Your task to perform on an android device: Show me popular games on the Play Store Image 0: 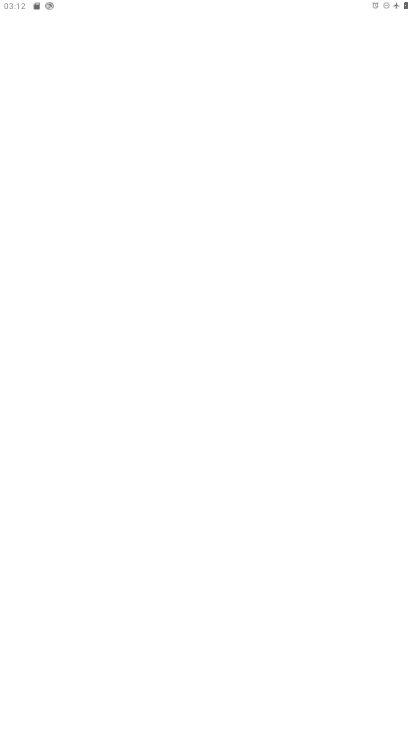
Step 0: press home button
Your task to perform on an android device: Show me popular games on the Play Store Image 1: 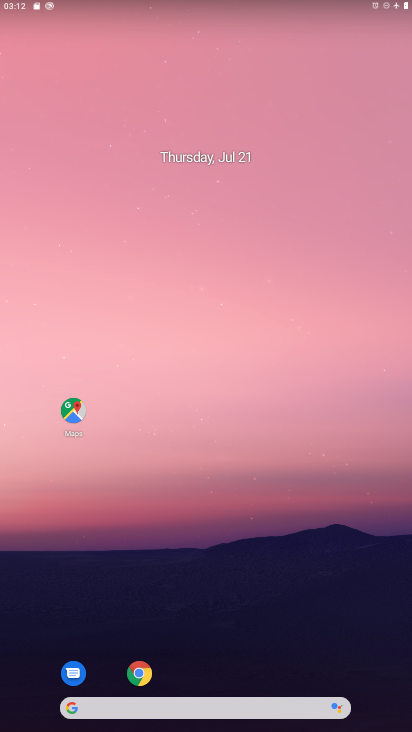
Step 1: drag from (214, 667) to (211, 173)
Your task to perform on an android device: Show me popular games on the Play Store Image 2: 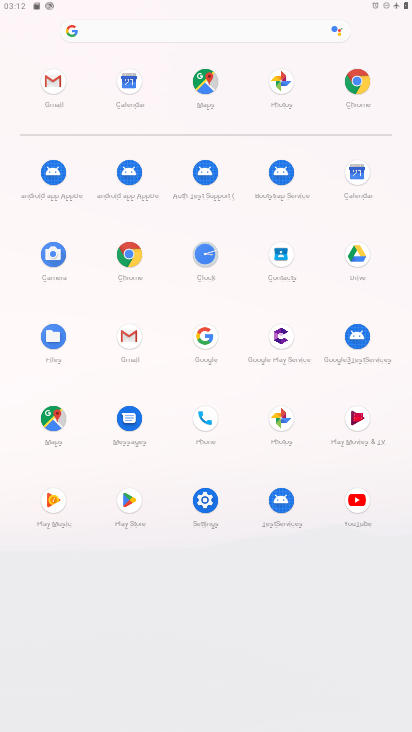
Step 2: click (129, 510)
Your task to perform on an android device: Show me popular games on the Play Store Image 3: 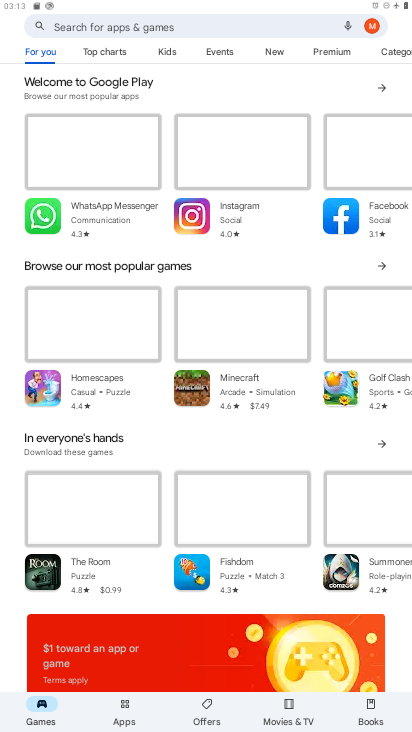
Step 3: task complete